Your task to perform on an android device: Go to Maps Image 0: 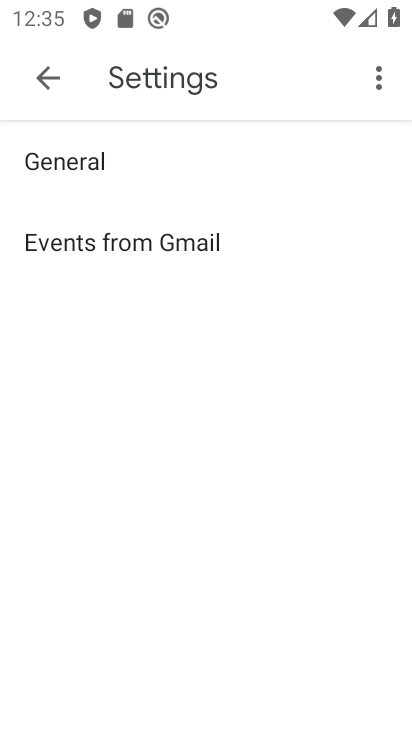
Step 0: press home button
Your task to perform on an android device: Go to Maps Image 1: 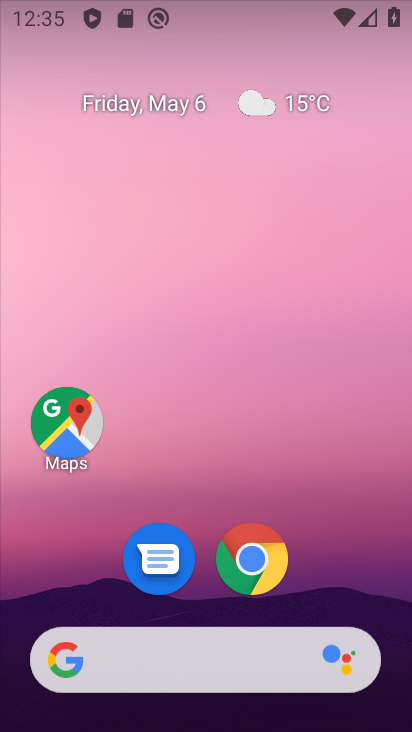
Step 1: click (56, 453)
Your task to perform on an android device: Go to Maps Image 2: 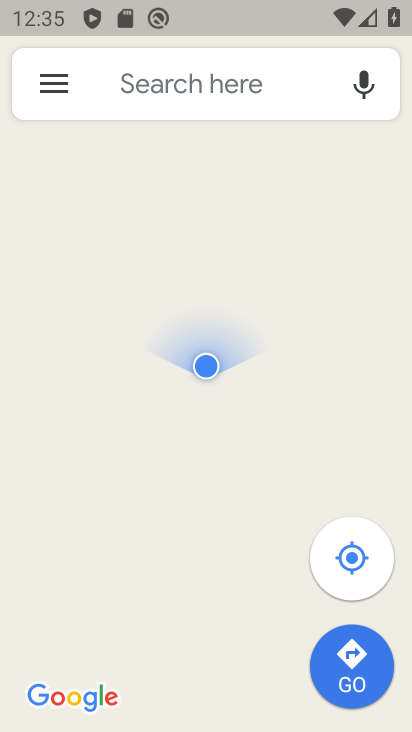
Step 2: task complete